Your task to perform on an android device: turn on sleep mode Image 0: 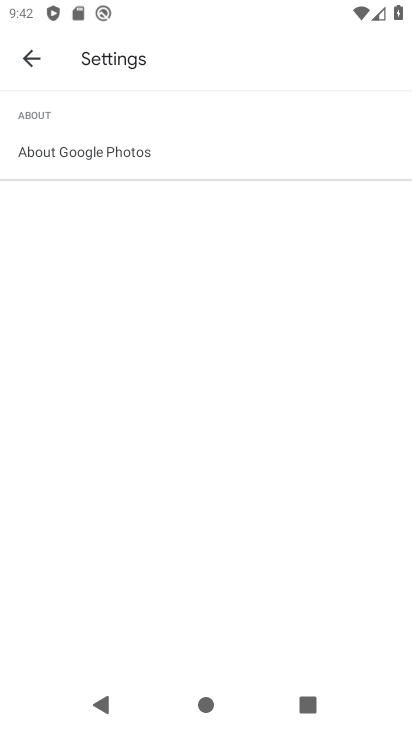
Step 0: press back button
Your task to perform on an android device: turn on sleep mode Image 1: 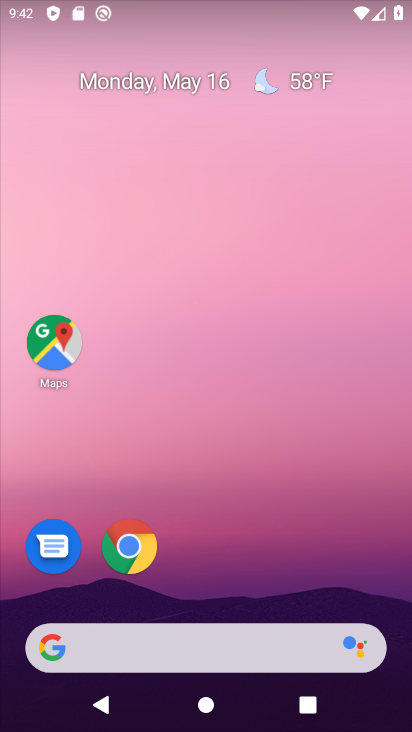
Step 1: drag from (226, 513) to (197, 230)
Your task to perform on an android device: turn on sleep mode Image 2: 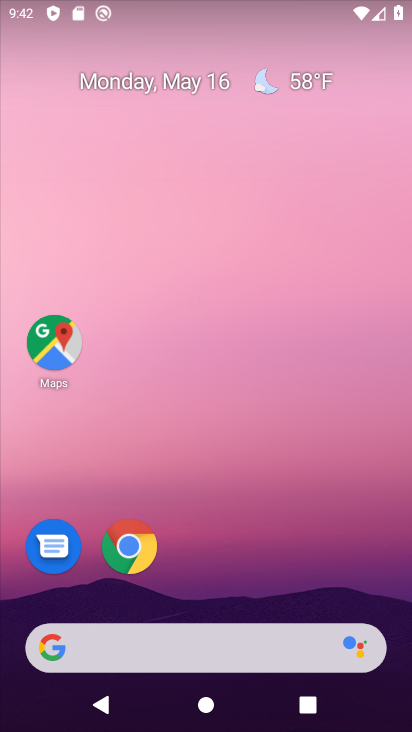
Step 2: drag from (227, 552) to (312, 215)
Your task to perform on an android device: turn on sleep mode Image 3: 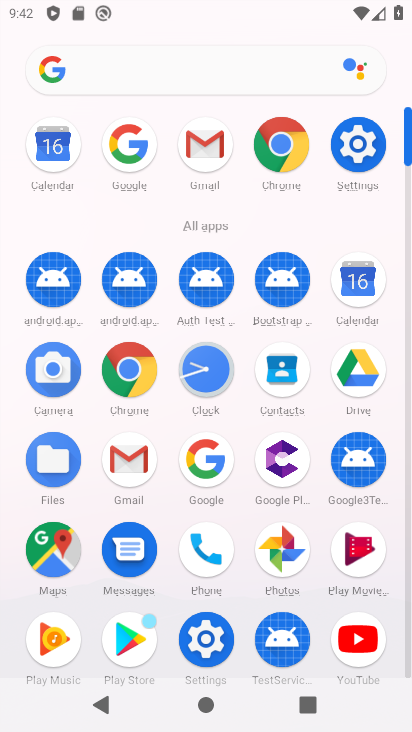
Step 3: click (352, 146)
Your task to perform on an android device: turn on sleep mode Image 4: 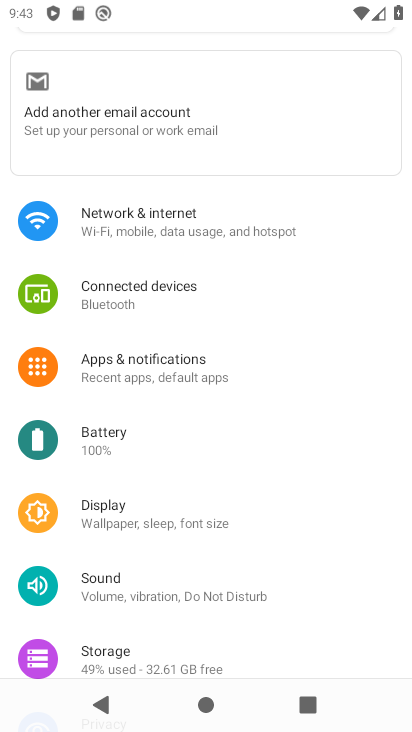
Step 4: click (153, 519)
Your task to perform on an android device: turn on sleep mode Image 5: 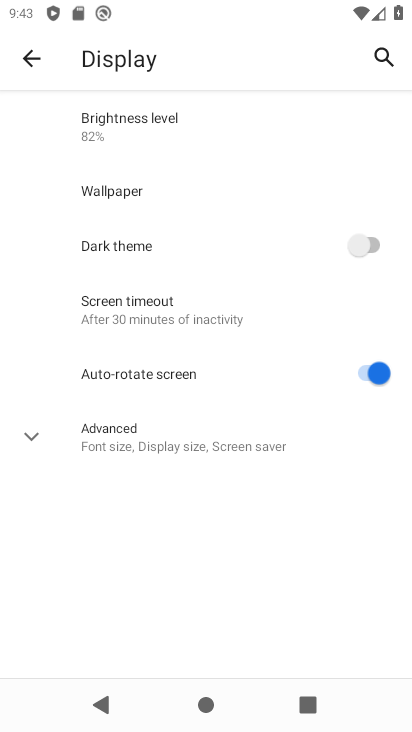
Step 5: click (162, 303)
Your task to perform on an android device: turn on sleep mode Image 6: 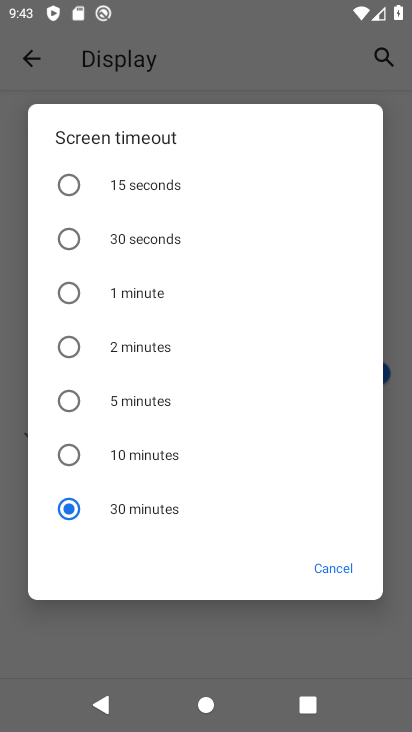
Step 6: click (326, 573)
Your task to perform on an android device: turn on sleep mode Image 7: 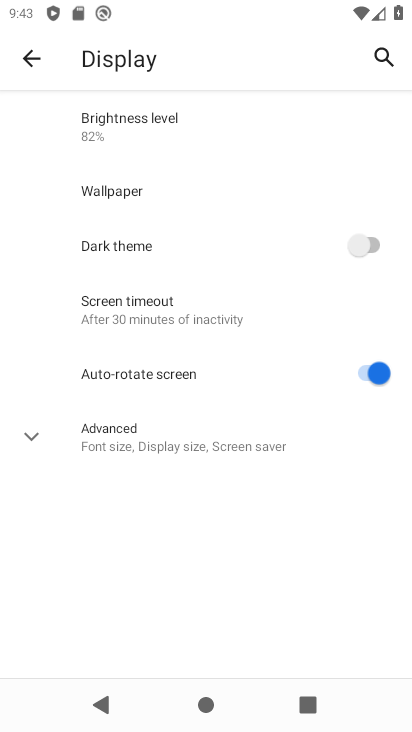
Step 7: click (134, 441)
Your task to perform on an android device: turn on sleep mode Image 8: 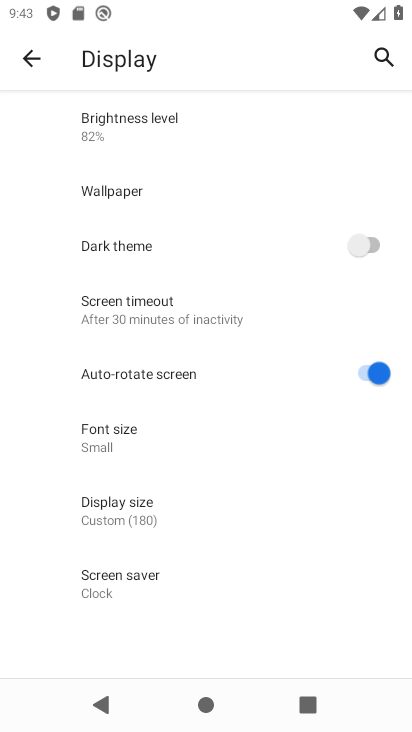
Step 8: task complete